Your task to perform on an android device: What's the weather today? Image 0: 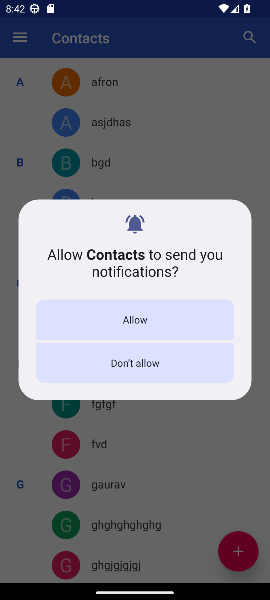
Step 0: press home button
Your task to perform on an android device: What's the weather today? Image 1: 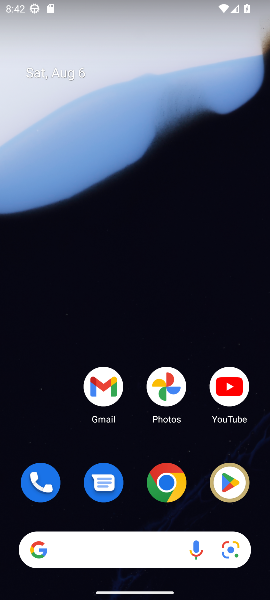
Step 1: click (102, 563)
Your task to perform on an android device: What's the weather today? Image 2: 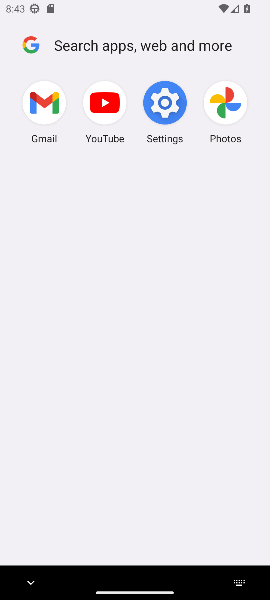
Step 2: type "What's the weather today?"
Your task to perform on an android device: What's the weather today? Image 3: 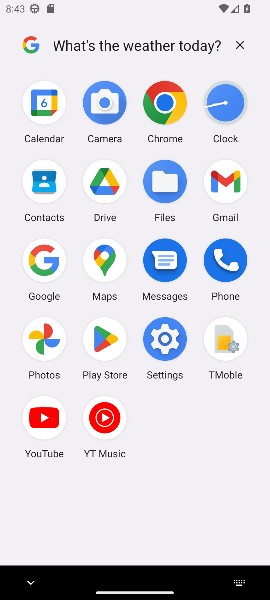
Step 3: type ""
Your task to perform on an android device: What's the weather today? Image 4: 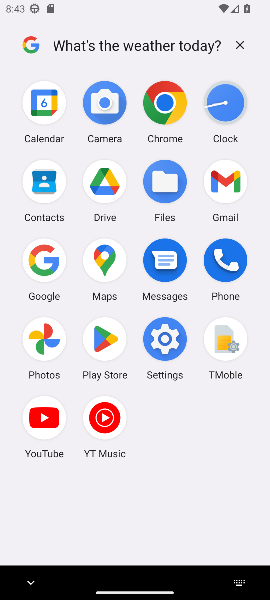
Step 4: type ""
Your task to perform on an android device: What's the weather today? Image 5: 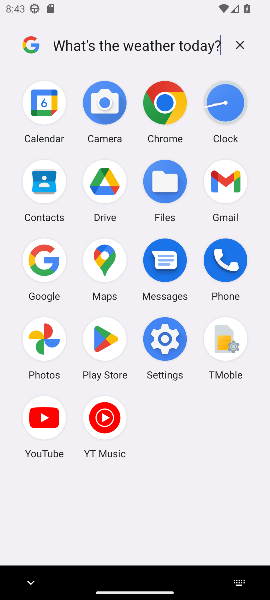
Step 5: type ""
Your task to perform on an android device: What's the weather today? Image 6: 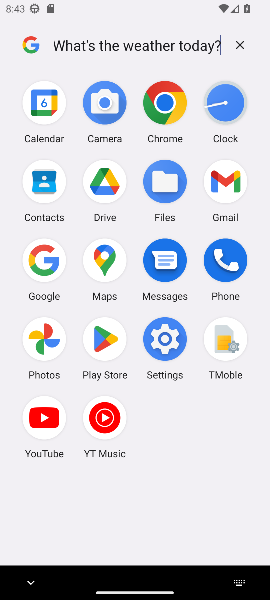
Step 6: task complete